Your task to perform on an android device: turn on airplane mode Image 0: 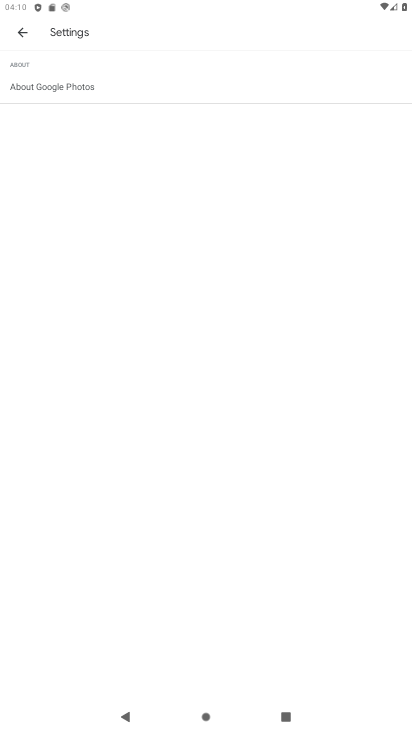
Step 0: press home button
Your task to perform on an android device: turn on airplane mode Image 1: 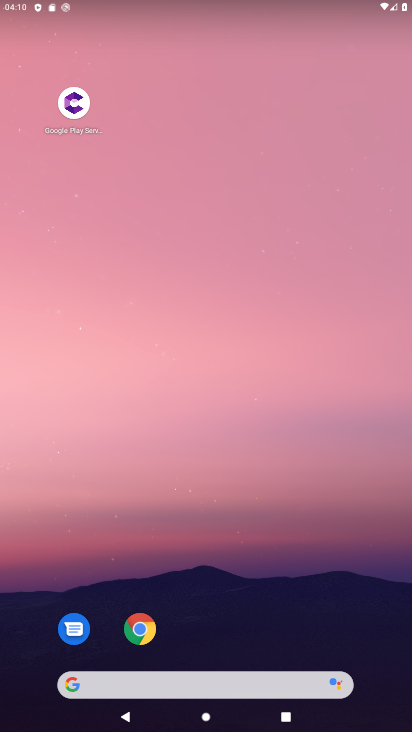
Step 1: drag from (320, 603) to (232, 90)
Your task to perform on an android device: turn on airplane mode Image 2: 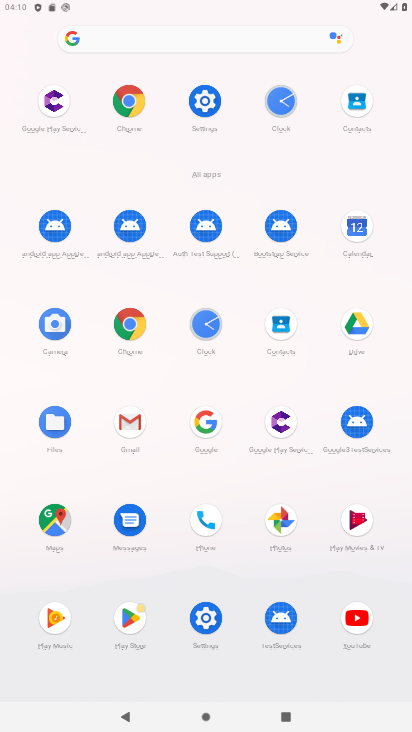
Step 2: click (200, 96)
Your task to perform on an android device: turn on airplane mode Image 3: 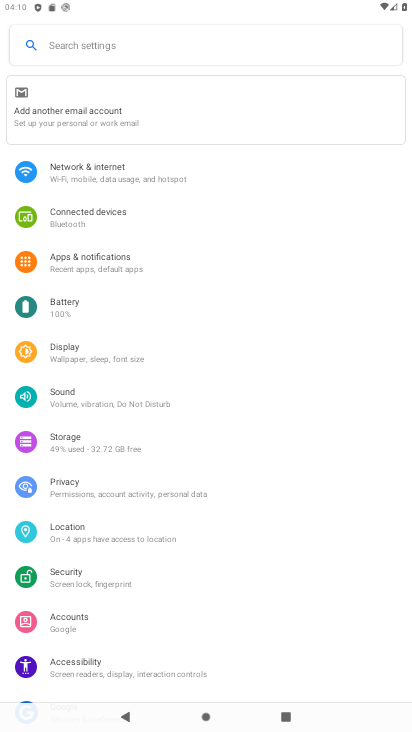
Step 3: click (126, 174)
Your task to perform on an android device: turn on airplane mode Image 4: 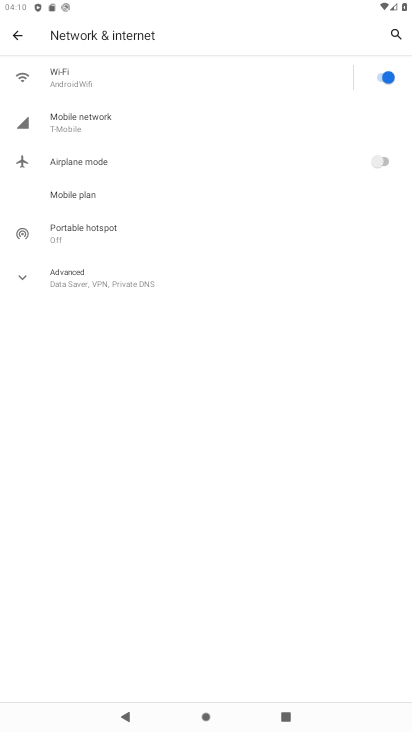
Step 4: click (383, 161)
Your task to perform on an android device: turn on airplane mode Image 5: 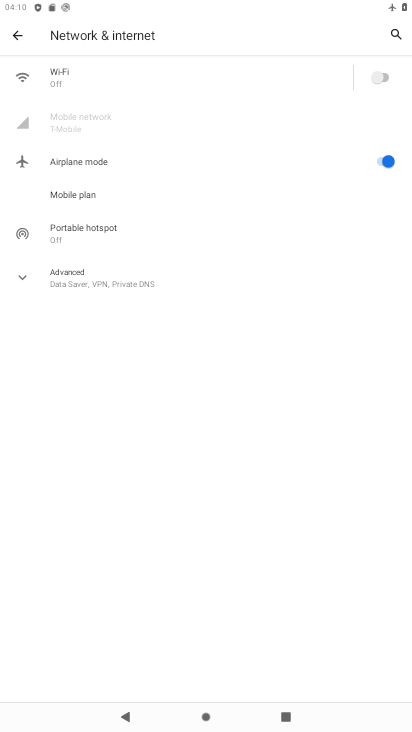
Step 5: task complete